Your task to perform on an android device: Open internet settings Image 0: 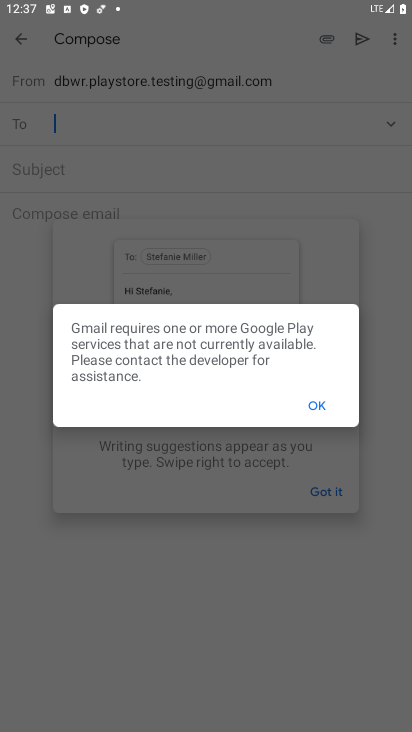
Step 0: press home button
Your task to perform on an android device: Open internet settings Image 1: 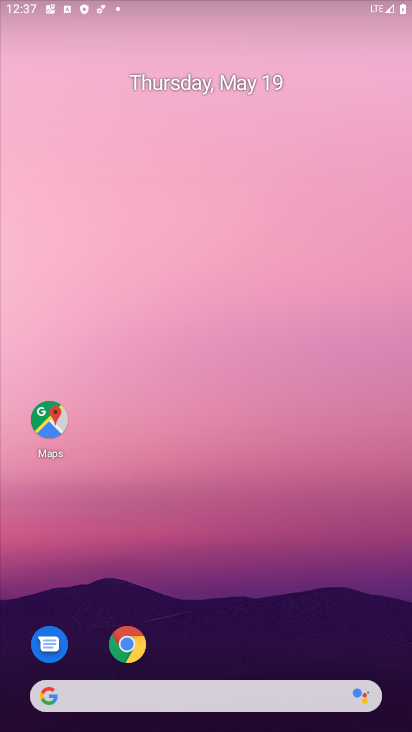
Step 1: drag from (338, 586) to (253, 67)
Your task to perform on an android device: Open internet settings Image 2: 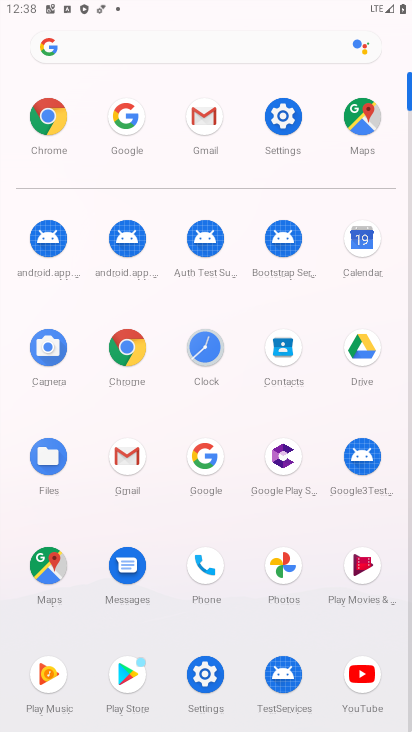
Step 2: click (201, 685)
Your task to perform on an android device: Open internet settings Image 3: 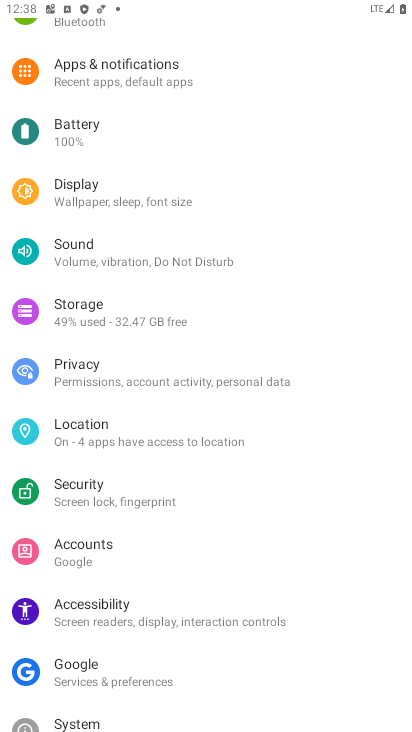
Step 3: drag from (223, 266) to (230, 649)
Your task to perform on an android device: Open internet settings Image 4: 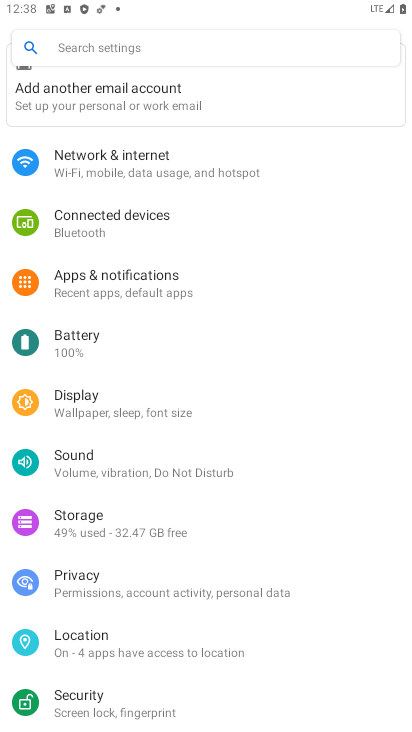
Step 4: click (139, 184)
Your task to perform on an android device: Open internet settings Image 5: 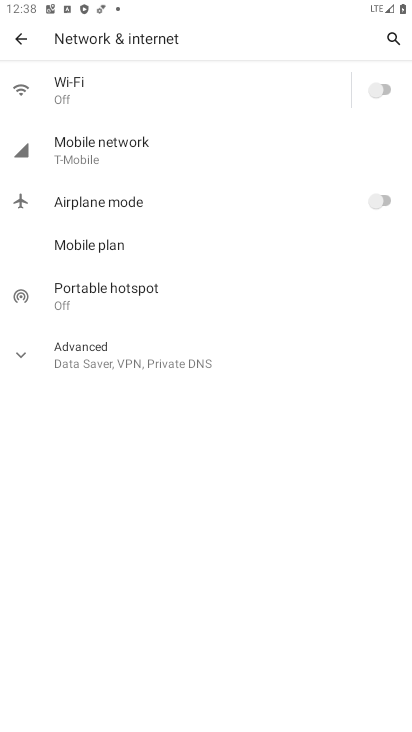
Step 5: task complete